Your task to perform on an android device: change the clock display to analog Image 0: 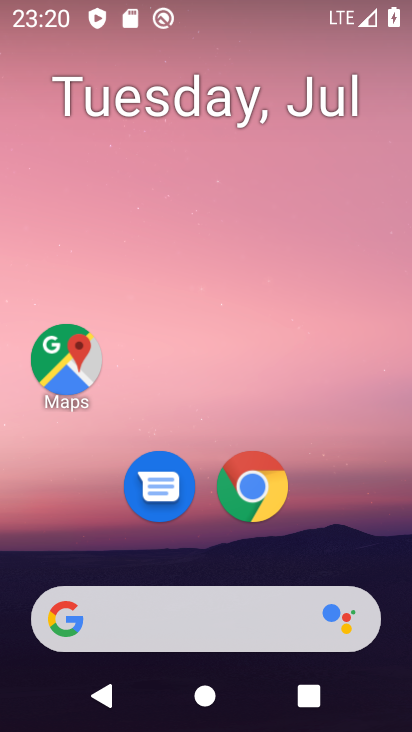
Step 0: press home button
Your task to perform on an android device: change the clock display to analog Image 1: 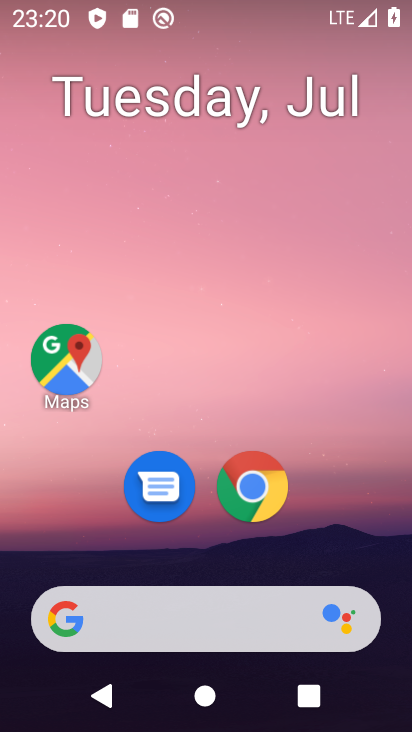
Step 1: drag from (341, 522) to (341, 140)
Your task to perform on an android device: change the clock display to analog Image 2: 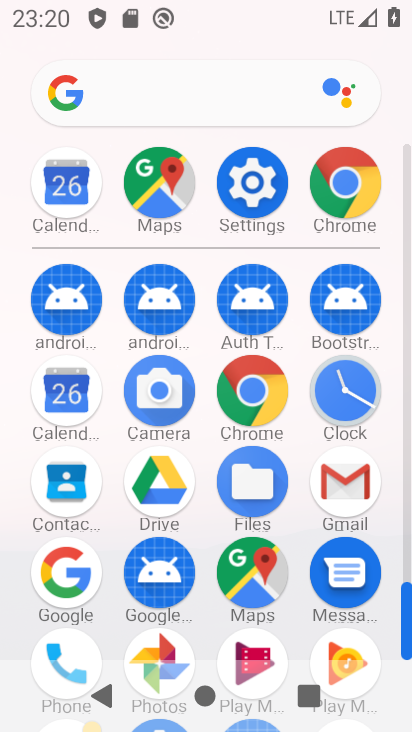
Step 2: click (337, 405)
Your task to perform on an android device: change the clock display to analog Image 3: 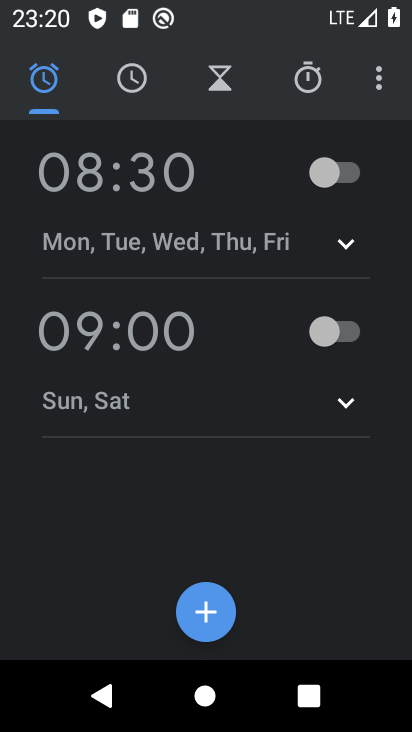
Step 3: click (378, 91)
Your task to perform on an android device: change the clock display to analog Image 4: 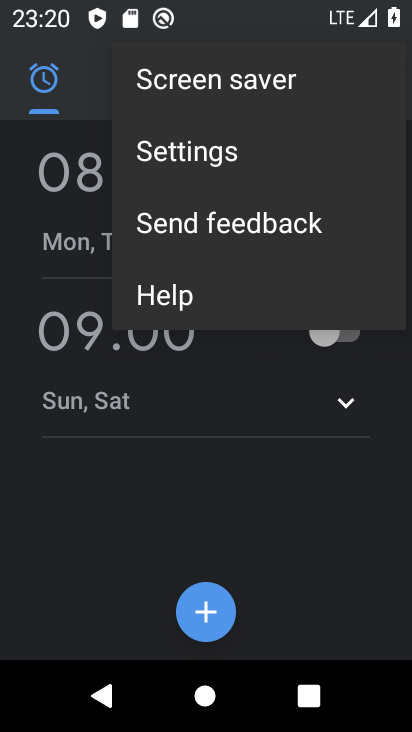
Step 4: click (233, 153)
Your task to perform on an android device: change the clock display to analog Image 5: 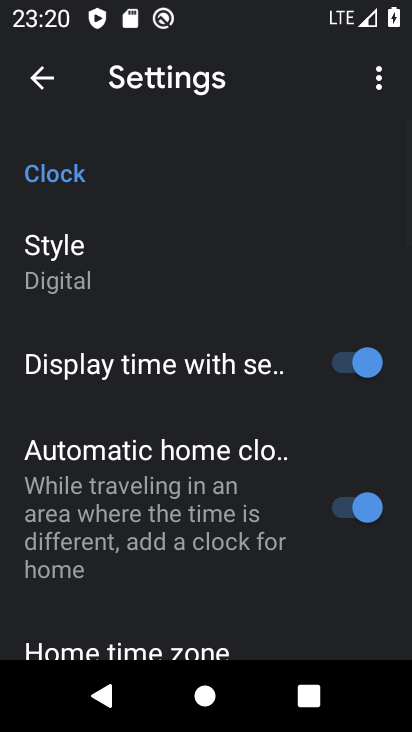
Step 5: drag from (269, 421) to (268, 303)
Your task to perform on an android device: change the clock display to analog Image 6: 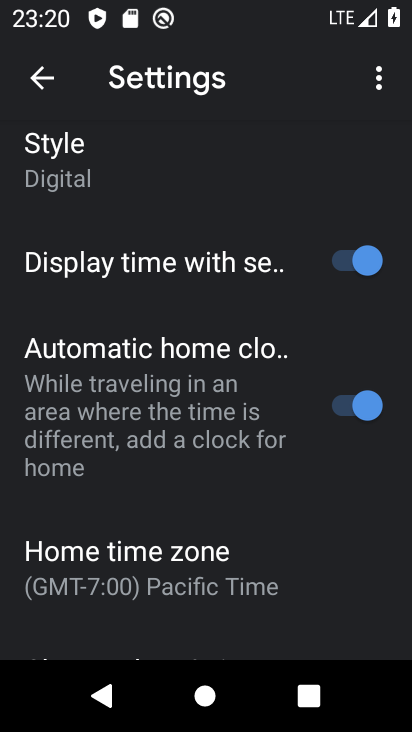
Step 6: drag from (273, 460) to (277, 363)
Your task to perform on an android device: change the clock display to analog Image 7: 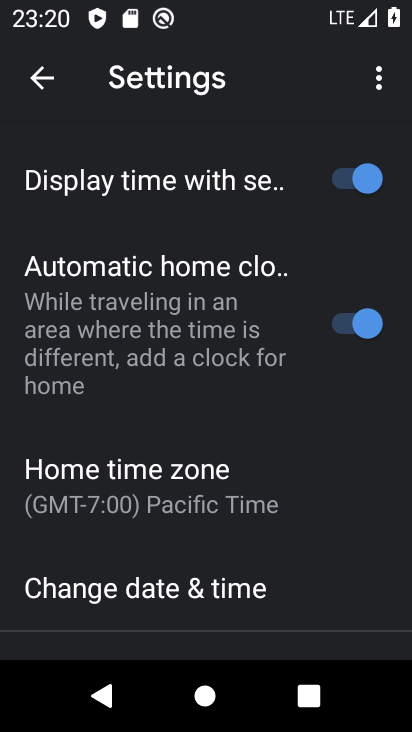
Step 7: drag from (298, 492) to (293, 385)
Your task to perform on an android device: change the clock display to analog Image 8: 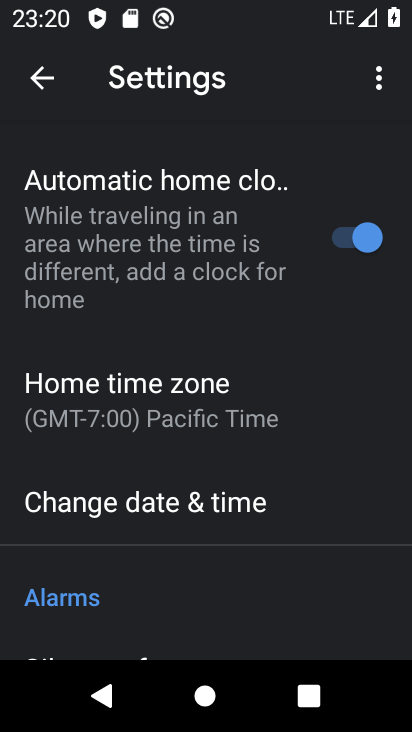
Step 8: drag from (304, 531) to (304, 413)
Your task to perform on an android device: change the clock display to analog Image 9: 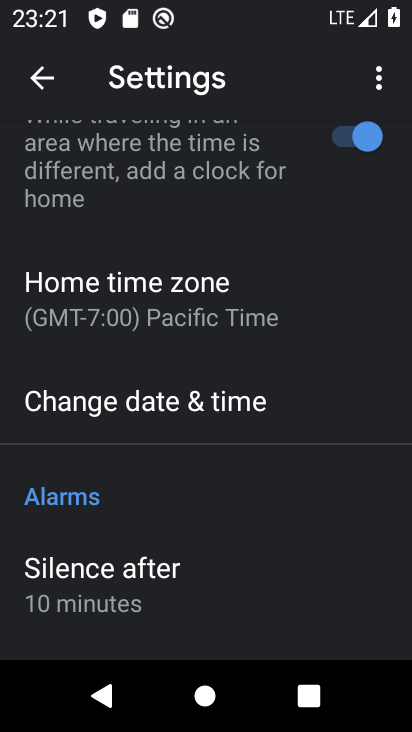
Step 9: drag from (289, 532) to (292, 450)
Your task to perform on an android device: change the clock display to analog Image 10: 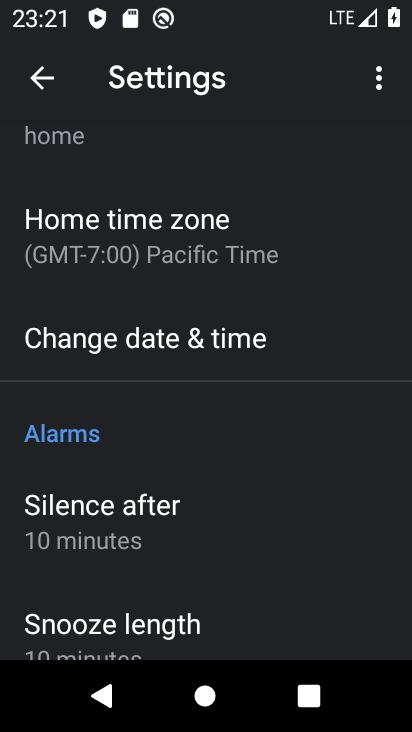
Step 10: drag from (301, 544) to (301, 447)
Your task to perform on an android device: change the clock display to analog Image 11: 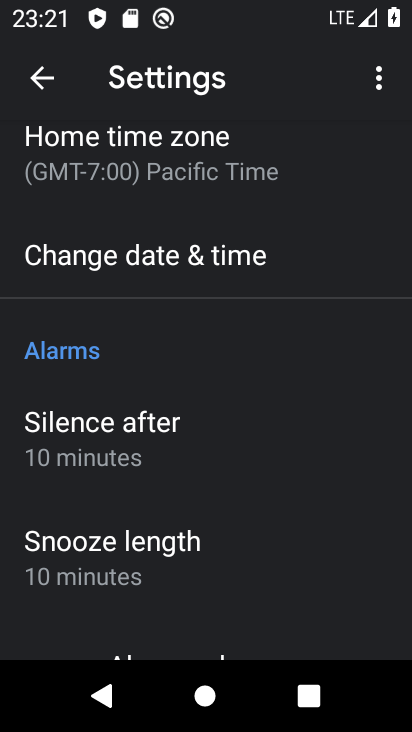
Step 11: drag from (286, 534) to (286, 432)
Your task to perform on an android device: change the clock display to analog Image 12: 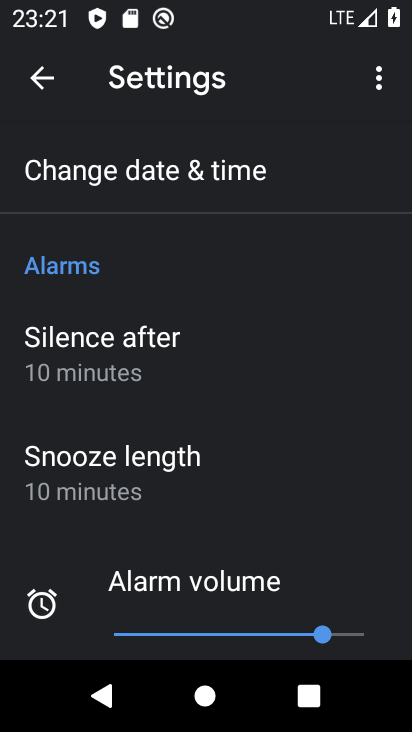
Step 12: drag from (303, 533) to (307, 413)
Your task to perform on an android device: change the clock display to analog Image 13: 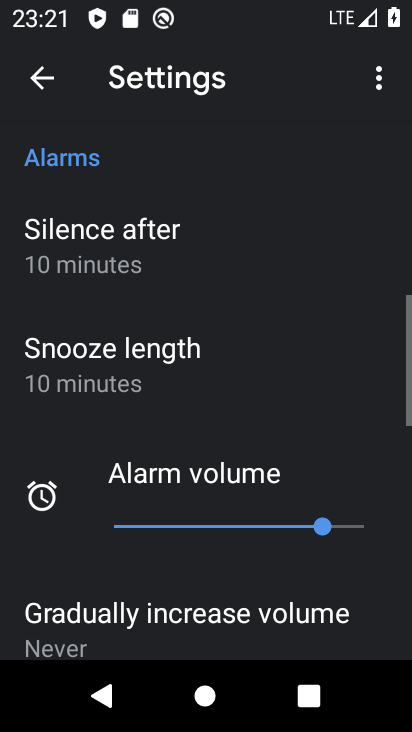
Step 13: drag from (307, 546) to (307, 438)
Your task to perform on an android device: change the clock display to analog Image 14: 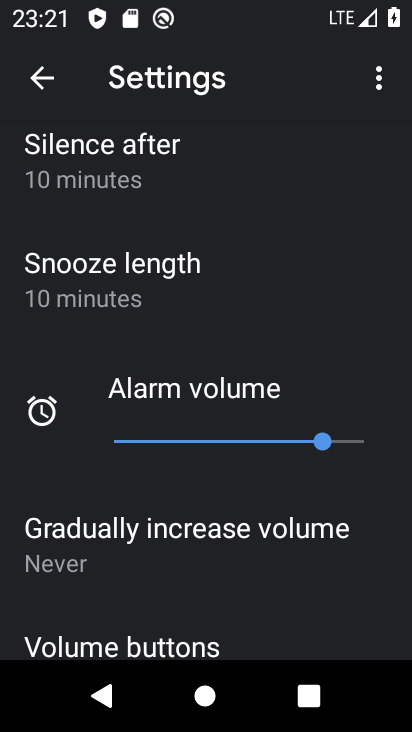
Step 14: drag from (348, 579) to (349, 469)
Your task to perform on an android device: change the clock display to analog Image 15: 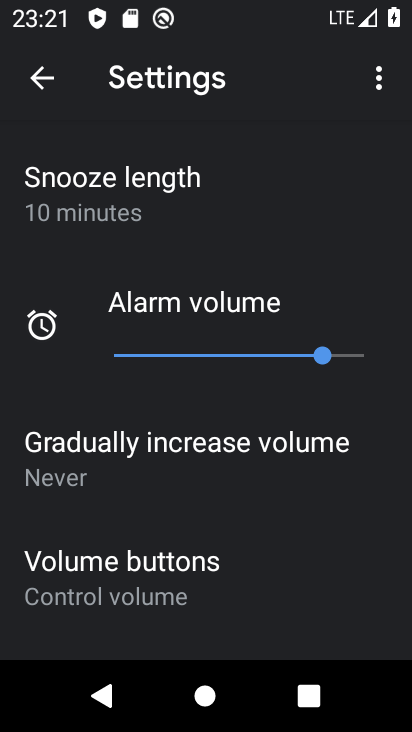
Step 15: drag from (349, 574) to (349, 475)
Your task to perform on an android device: change the clock display to analog Image 16: 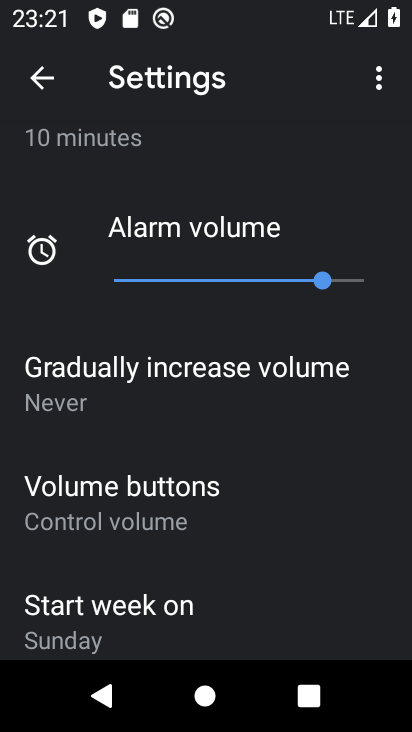
Step 16: drag from (346, 576) to (349, 460)
Your task to perform on an android device: change the clock display to analog Image 17: 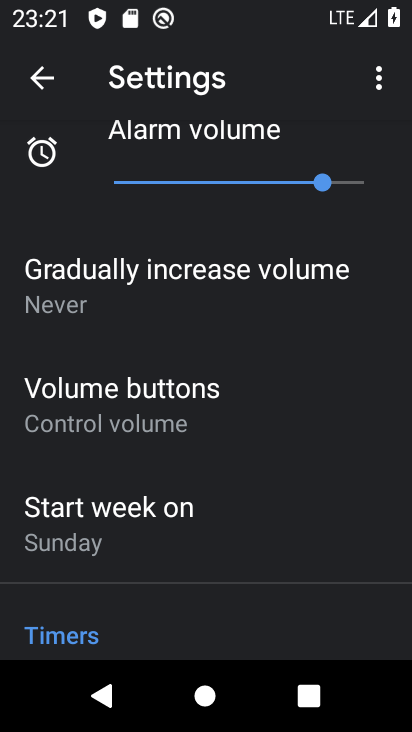
Step 17: drag from (349, 570) to (345, 457)
Your task to perform on an android device: change the clock display to analog Image 18: 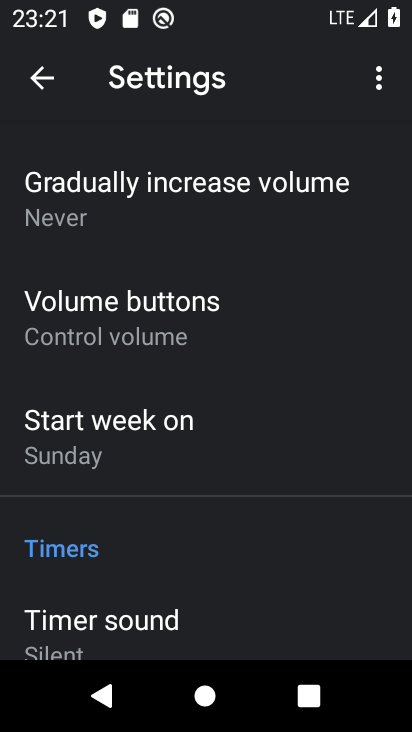
Step 18: drag from (327, 545) to (331, 459)
Your task to perform on an android device: change the clock display to analog Image 19: 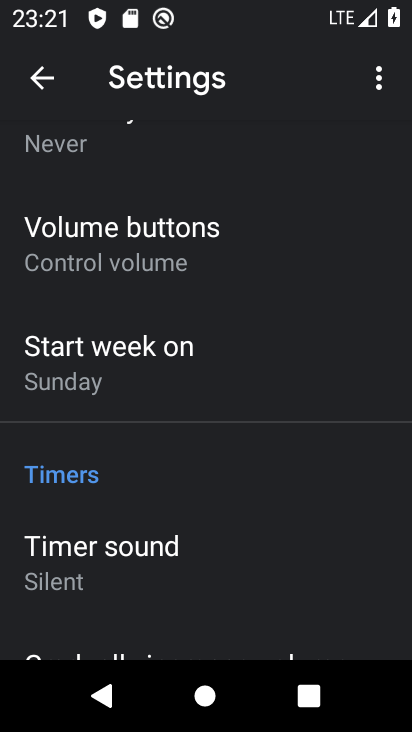
Step 19: drag from (294, 323) to (300, 420)
Your task to perform on an android device: change the clock display to analog Image 20: 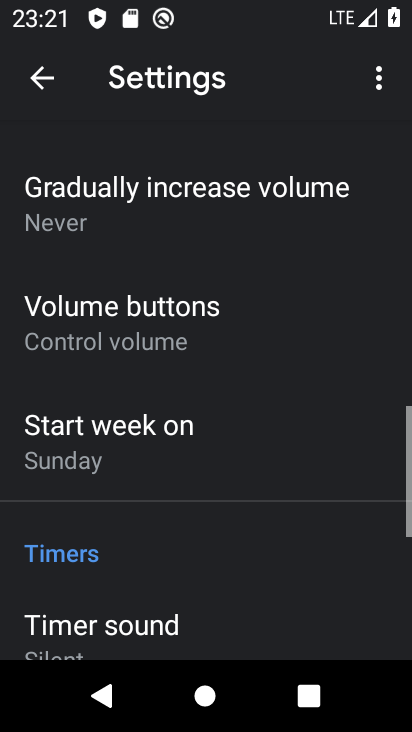
Step 20: drag from (325, 275) to (328, 403)
Your task to perform on an android device: change the clock display to analog Image 21: 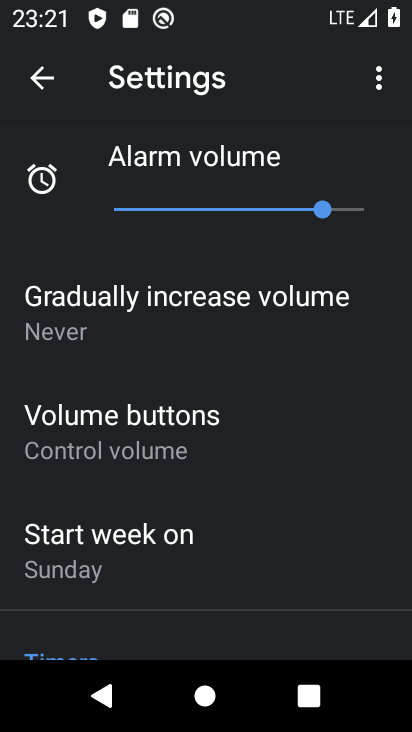
Step 21: drag from (356, 224) to (356, 330)
Your task to perform on an android device: change the clock display to analog Image 22: 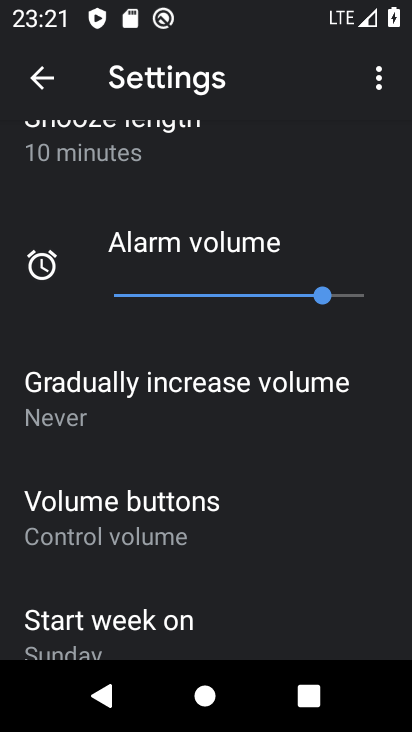
Step 22: drag from (360, 214) to (357, 378)
Your task to perform on an android device: change the clock display to analog Image 23: 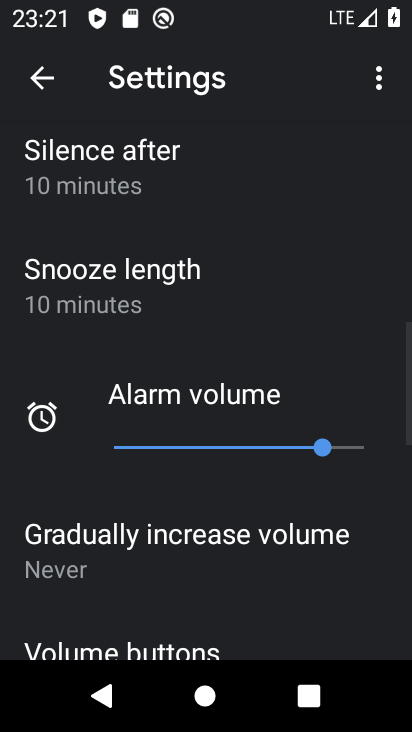
Step 23: drag from (328, 165) to (327, 302)
Your task to perform on an android device: change the clock display to analog Image 24: 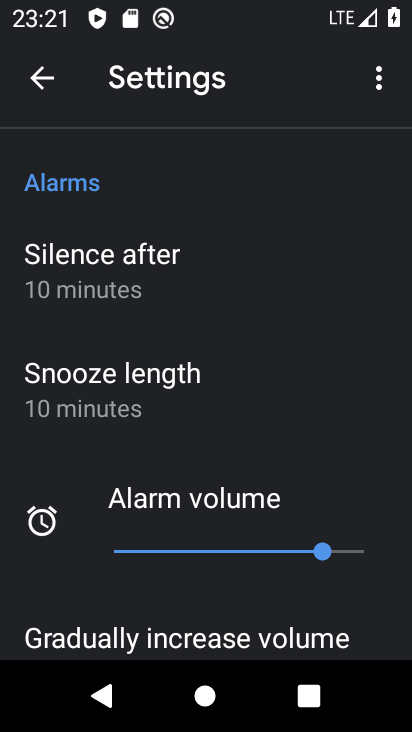
Step 24: drag from (275, 153) to (275, 375)
Your task to perform on an android device: change the clock display to analog Image 25: 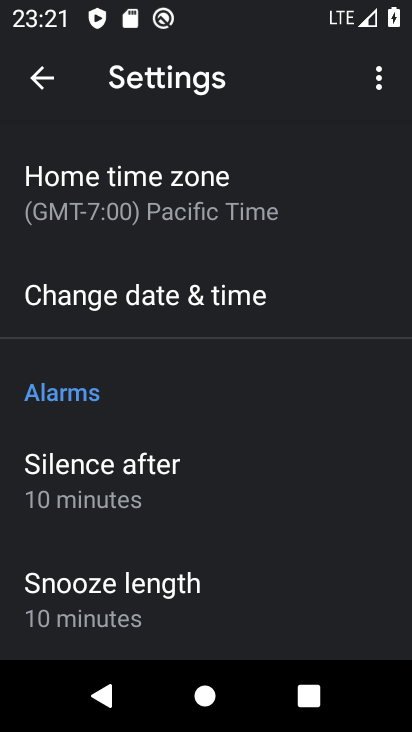
Step 25: drag from (302, 166) to (305, 372)
Your task to perform on an android device: change the clock display to analog Image 26: 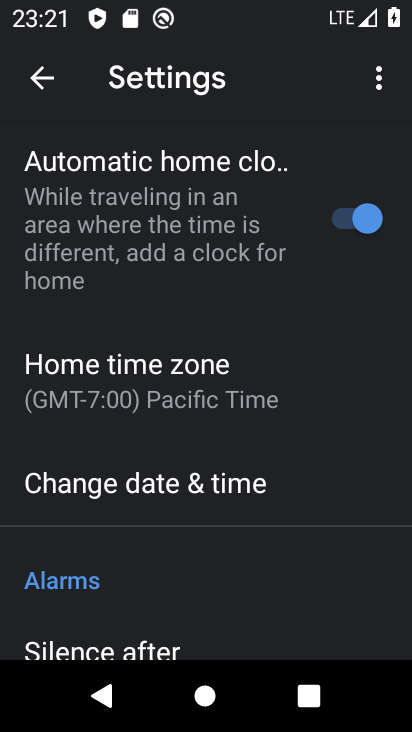
Step 26: drag from (293, 116) to (294, 411)
Your task to perform on an android device: change the clock display to analog Image 27: 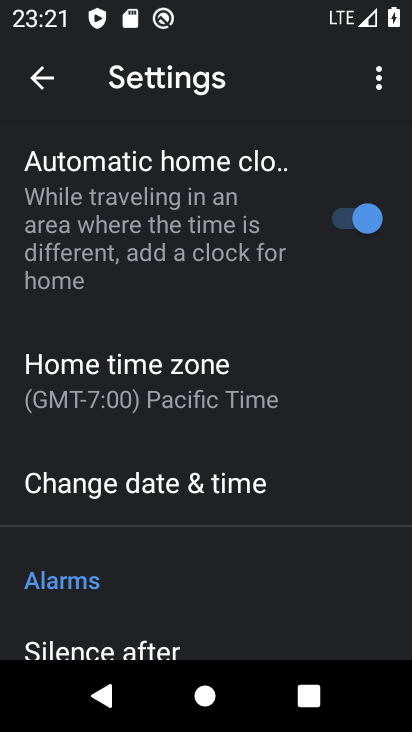
Step 27: drag from (285, 135) to (285, 428)
Your task to perform on an android device: change the clock display to analog Image 28: 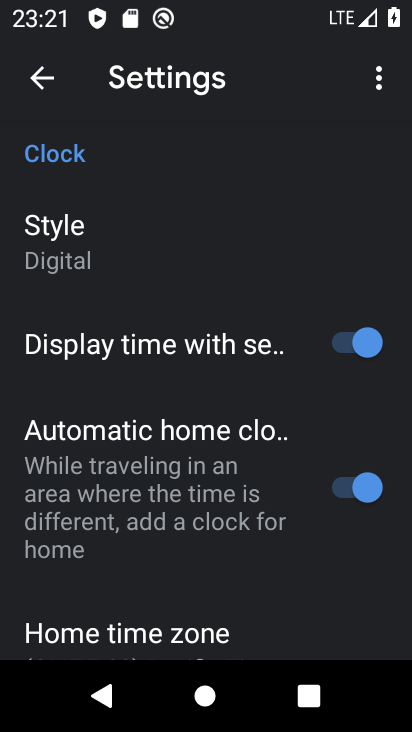
Step 28: click (84, 254)
Your task to perform on an android device: change the clock display to analog Image 29: 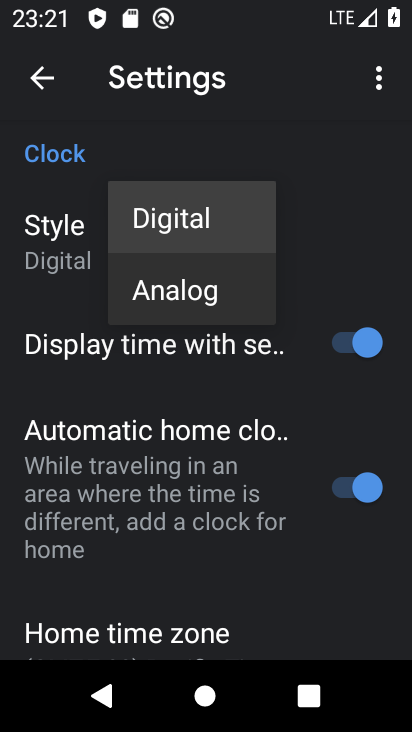
Step 29: click (181, 300)
Your task to perform on an android device: change the clock display to analog Image 30: 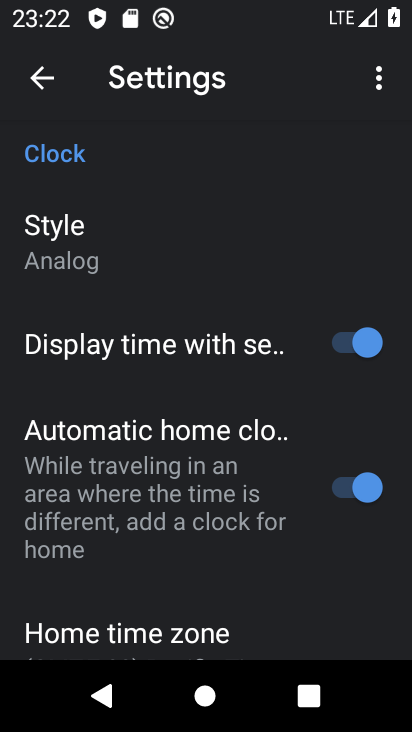
Step 30: task complete